Your task to perform on an android device: Open battery settings Image 0: 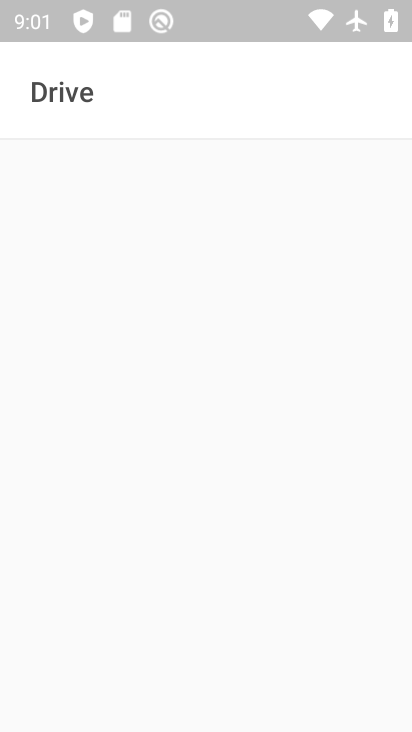
Step 0: press home button
Your task to perform on an android device: Open battery settings Image 1: 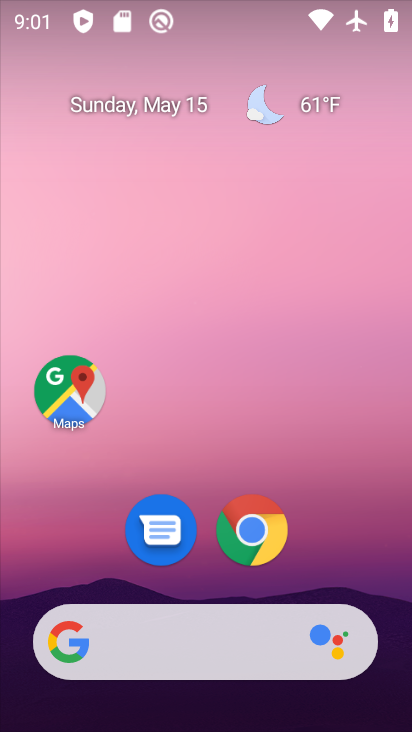
Step 1: drag from (203, 714) to (132, 124)
Your task to perform on an android device: Open battery settings Image 2: 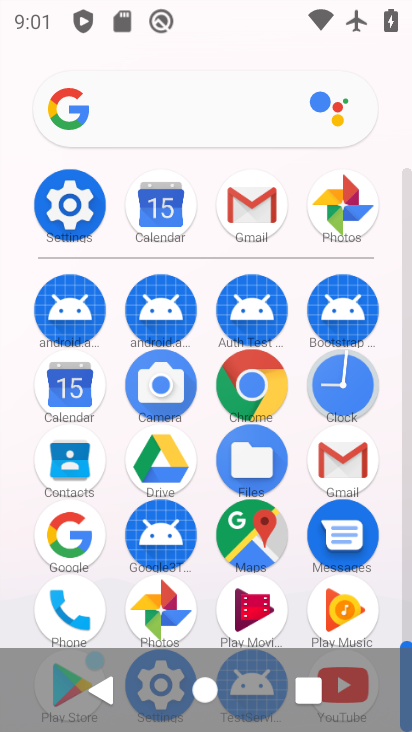
Step 2: click (69, 193)
Your task to perform on an android device: Open battery settings Image 3: 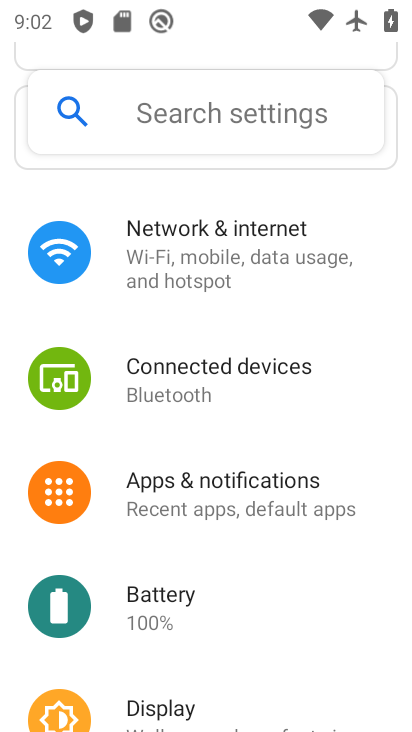
Step 3: click (159, 601)
Your task to perform on an android device: Open battery settings Image 4: 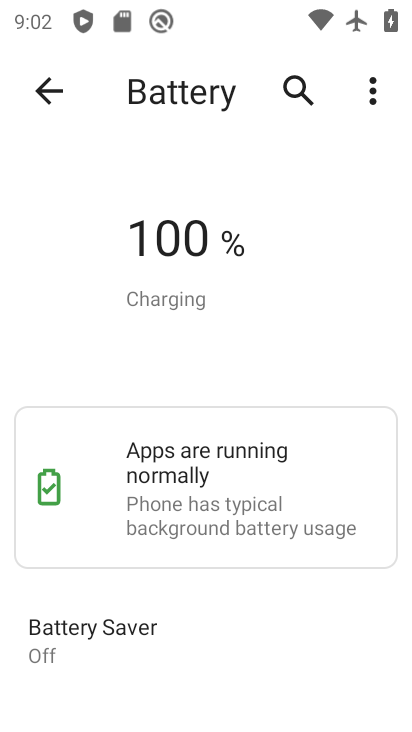
Step 4: task complete